Your task to perform on an android device: change notifications settings Image 0: 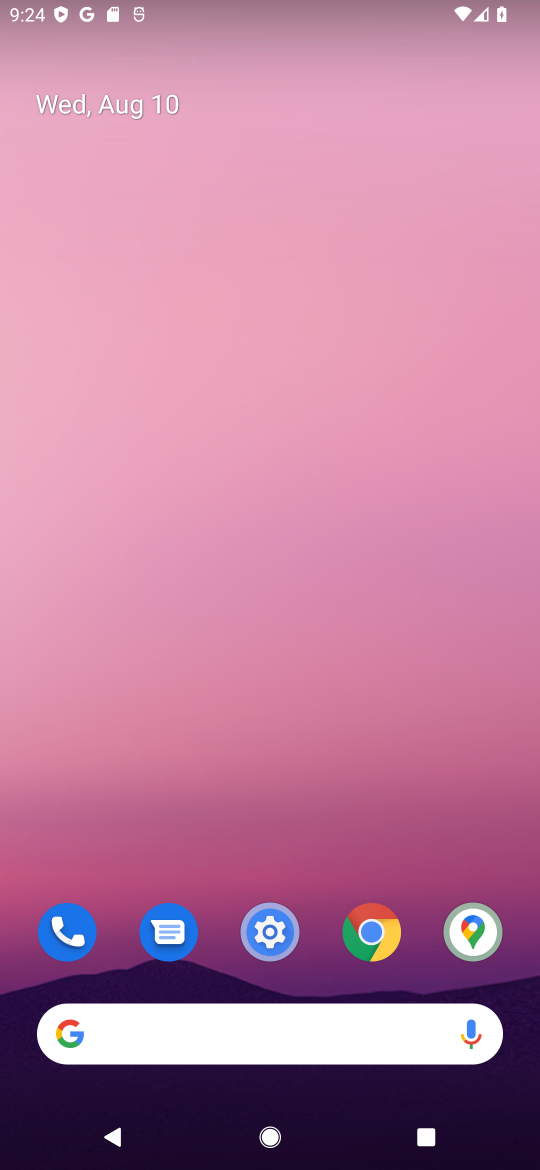
Step 0: click (264, 929)
Your task to perform on an android device: change notifications settings Image 1: 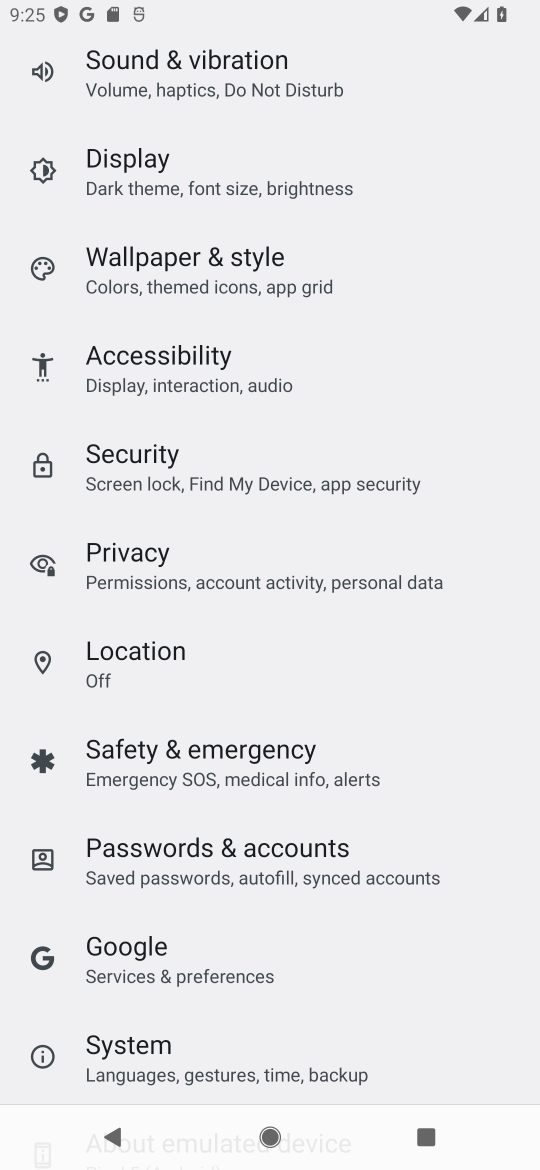
Step 1: drag from (395, 150) to (376, 679)
Your task to perform on an android device: change notifications settings Image 2: 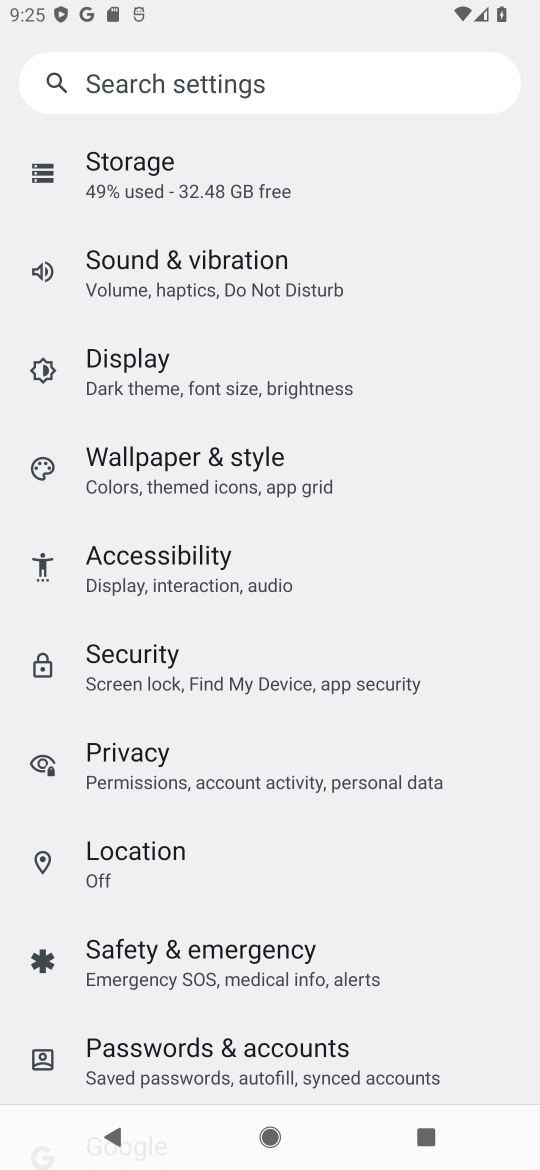
Step 2: drag from (345, 317) to (332, 1057)
Your task to perform on an android device: change notifications settings Image 3: 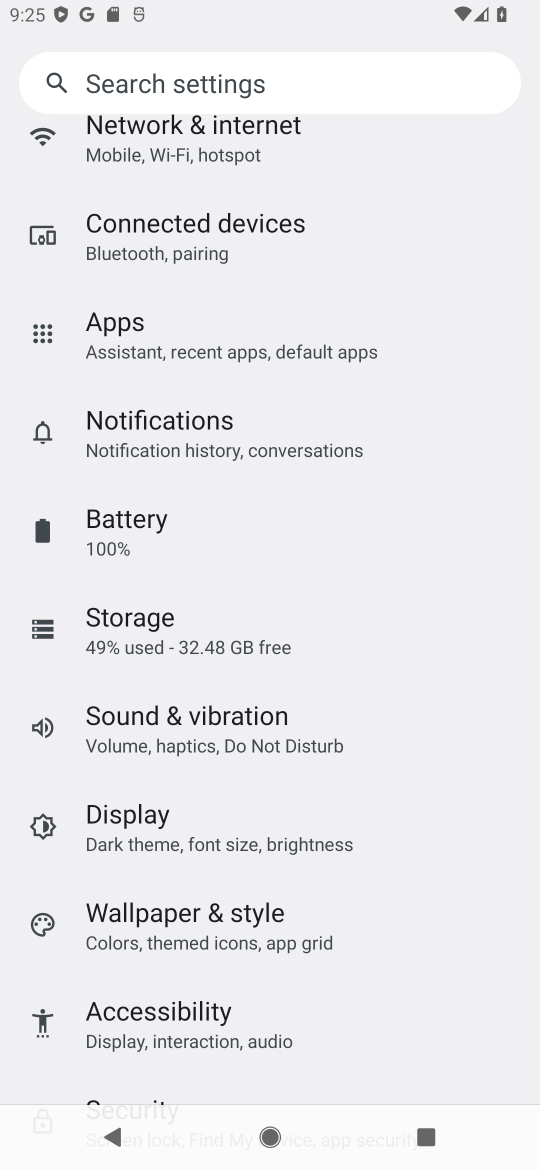
Step 3: click (174, 411)
Your task to perform on an android device: change notifications settings Image 4: 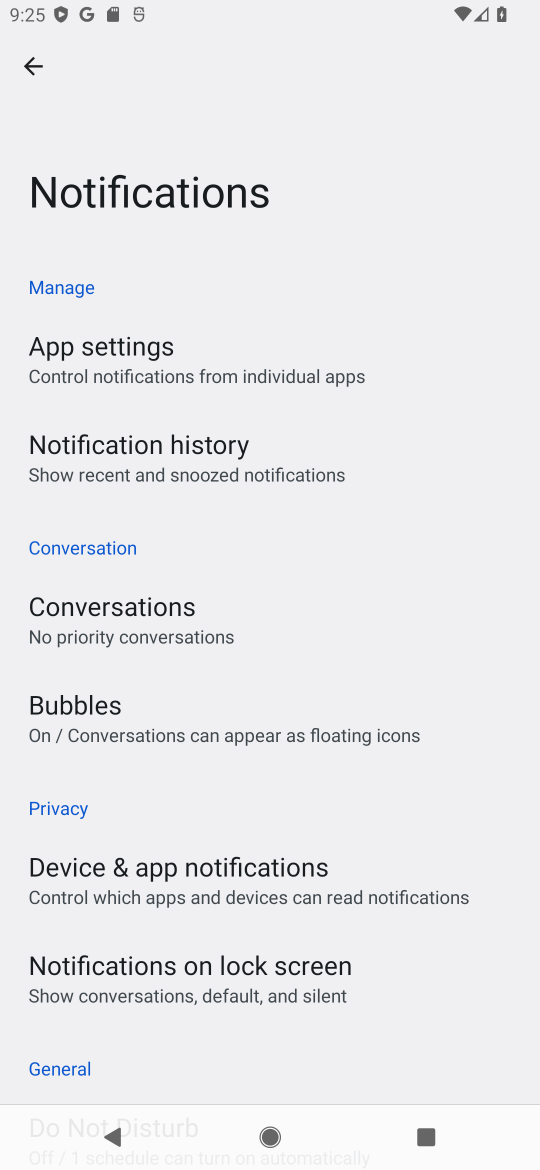
Step 4: click (111, 356)
Your task to perform on an android device: change notifications settings Image 5: 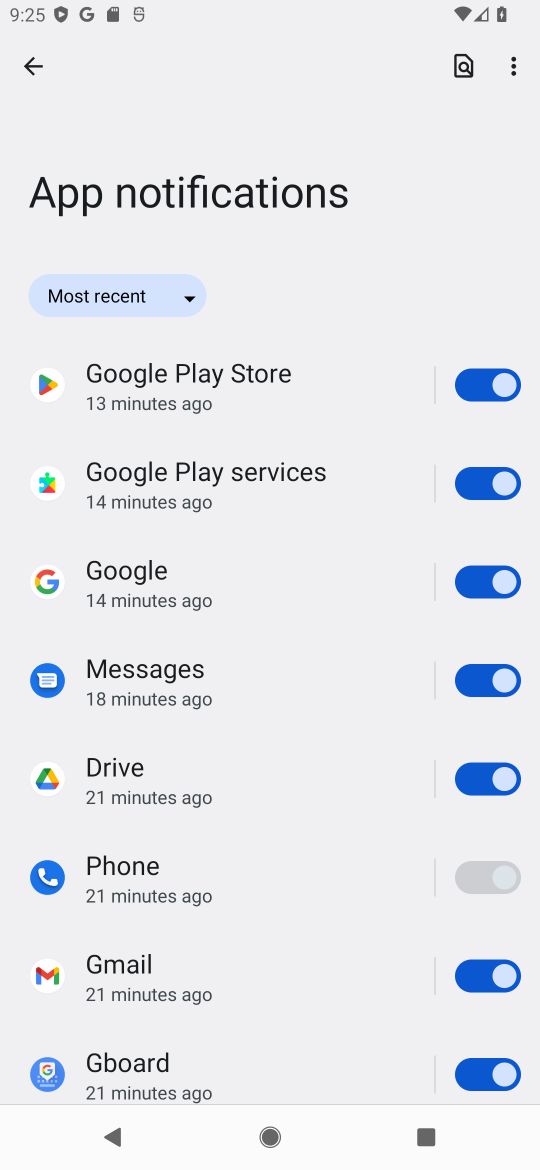
Step 5: click (176, 288)
Your task to perform on an android device: change notifications settings Image 6: 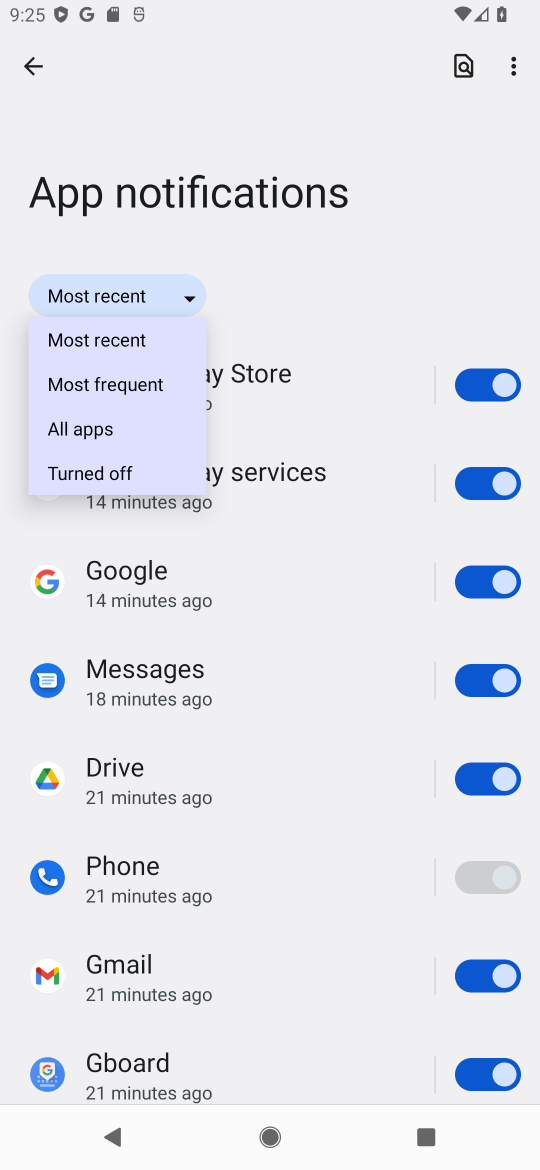
Step 6: click (89, 475)
Your task to perform on an android device: change notifications settings Image 7: 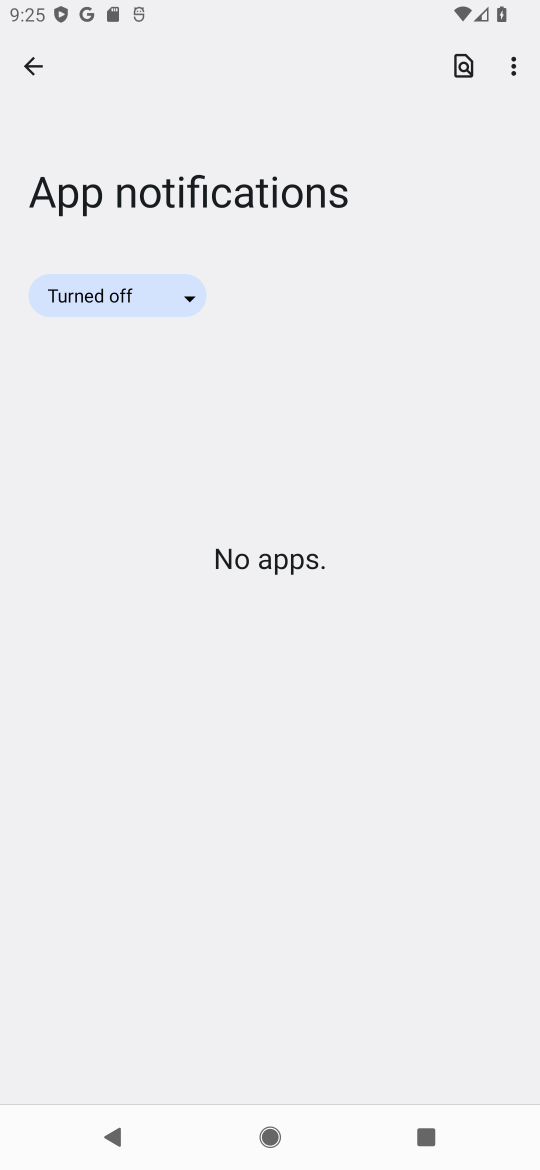
Step 7: task complete